Your task to perform on an android device: check out phone information Image 0: 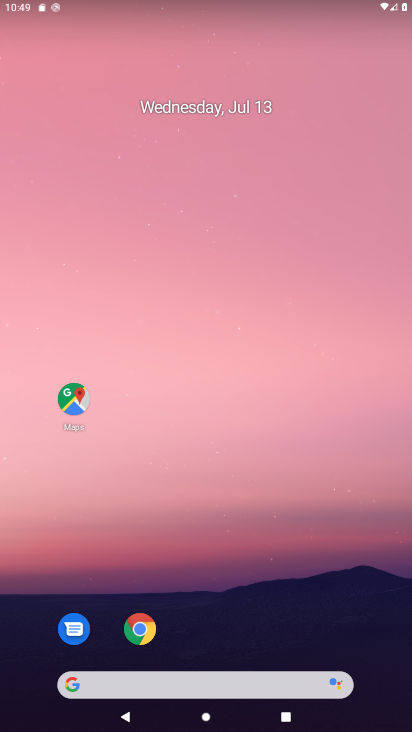
Step 0: drag from (237, 643) to (185, 175)
Your task to perform on an android device: check out phone information Image 1: 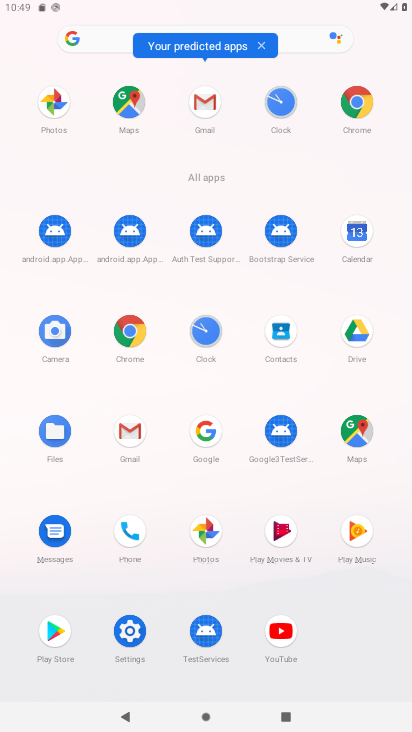
Step 1: click (133, 627)
Your task to perform on an android device: check out phone information Image 2: 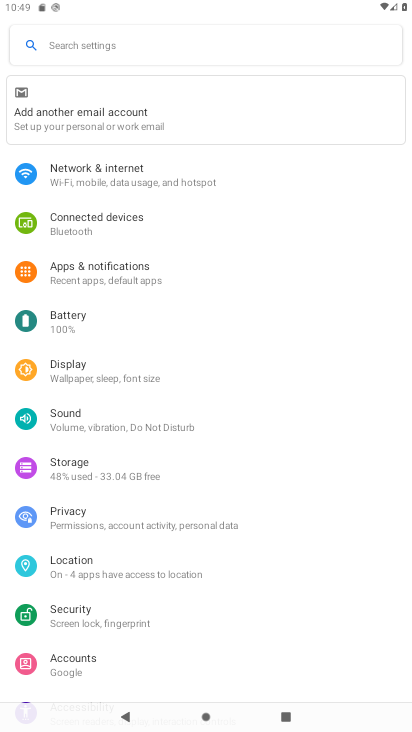
Step 2: drag from (184, 686) to (148, 312)
Your task to perform on an android device: check out phone information Image 3: 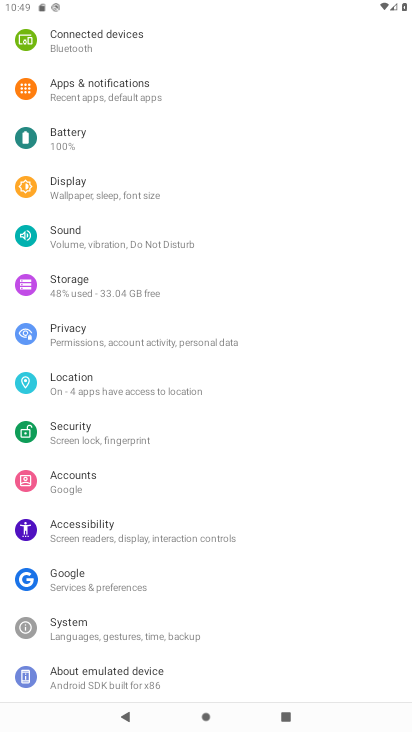
Step 3: click (147, 682)
Your task to perform on an android device: check out phone information Image 4: 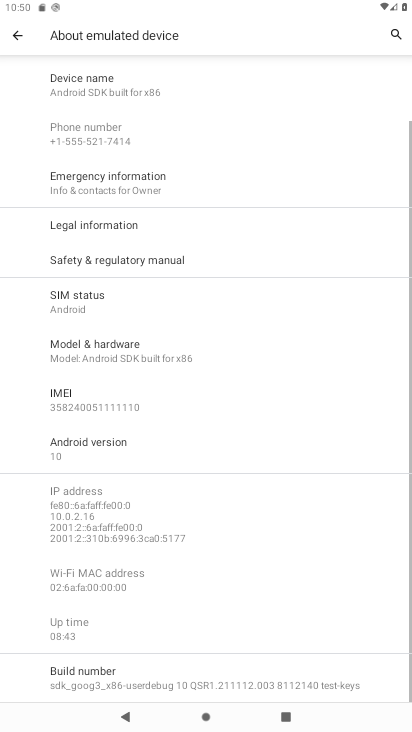
Step 4: task complete